Your task to perform on an android device: clear all cookies in the chrome app Image 0: 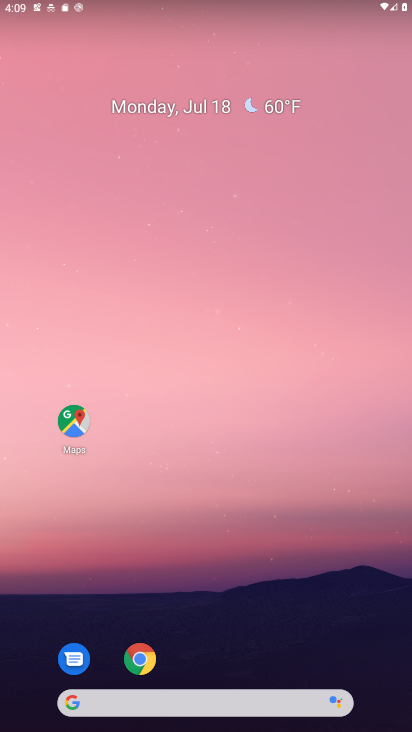
Step 0: drag from (316, 701) to (350, 139)
Your task to perform on an android device: clear all cookies in the chrome app Image 1: 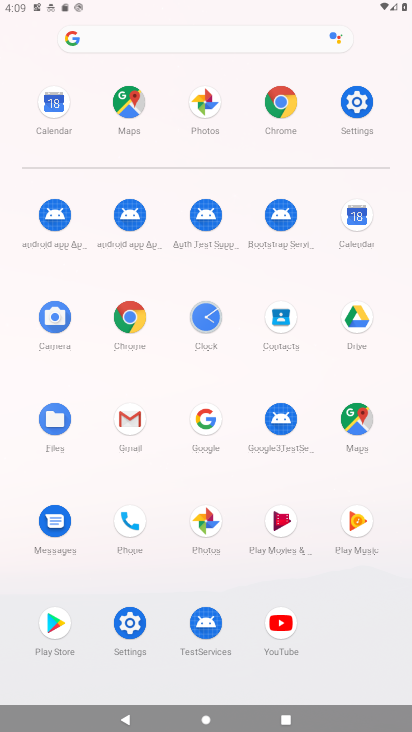
Step 1: click (126, 320)
Your task to perform on an android device: clear all cookies in the chrome app Image 2: 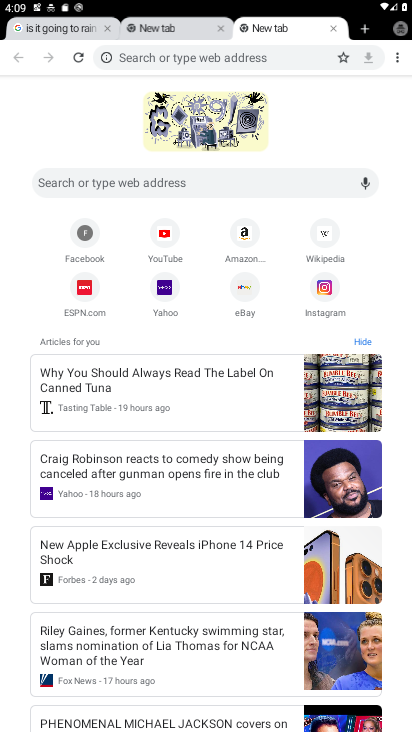
Step 2: drag from (398, 51) to (318, 261)
Your task to perform on an android device: clear all cookies in the chrome app Image 3: 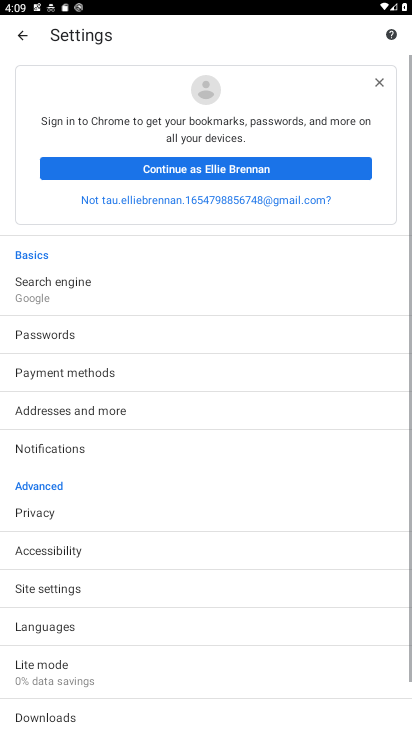
Step 3: click (68, 522)
Your task to perform on an android device: clear all cookies in the chrome app Image 4: 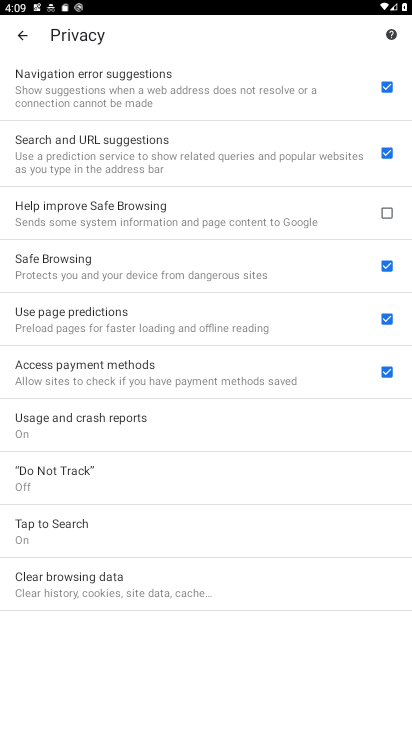
Step 4: click (109, 584)
Your task to perform on an android device: clear all cookies in the chrome app Image 5: 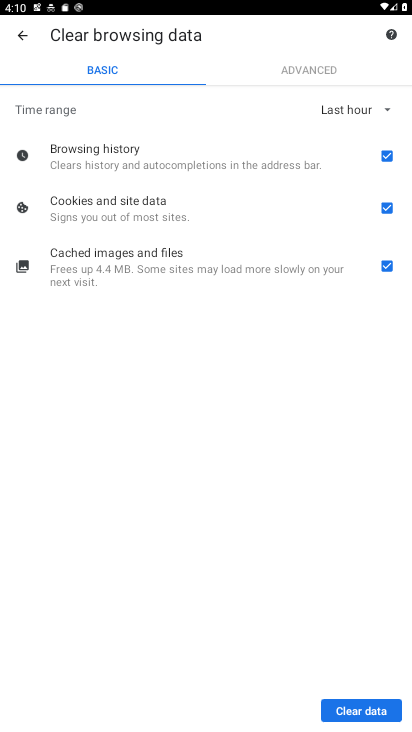
Step 5: click (356, 711)
Your task to perform on an android device: clear all cookies in the chrome app Image 6: 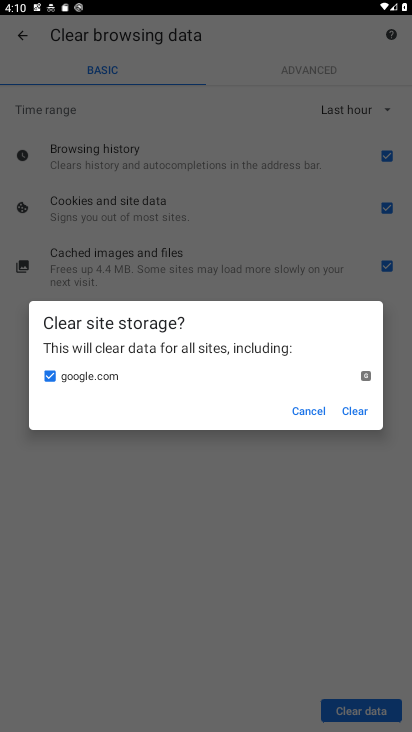
Step 6: click (356, 415)
Your task to perform on an android device: clear all cookies in the chrome app Image 7: 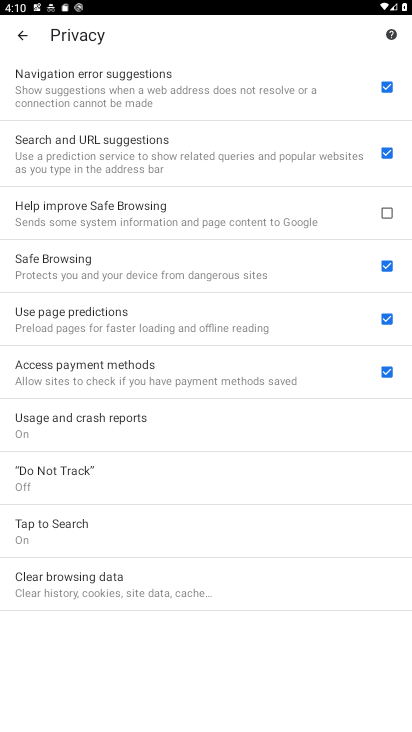
Step 7: task complete